Your task to perform on an android device: Go to Wikipedia Image 0: 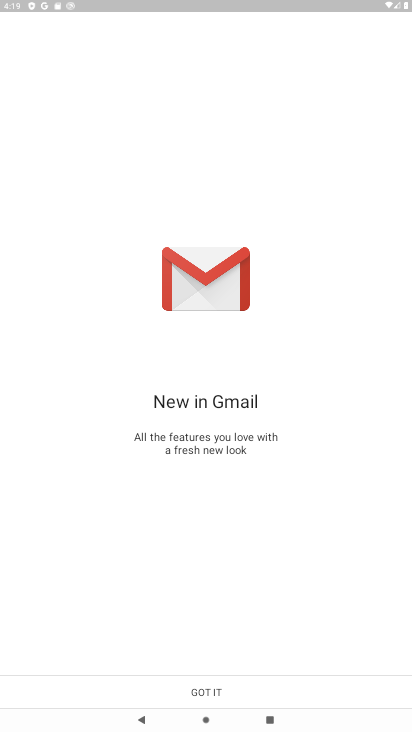
Step 0: click (210, 691)
Your task to perform on an android device: Go to Wikipedia Image 1: 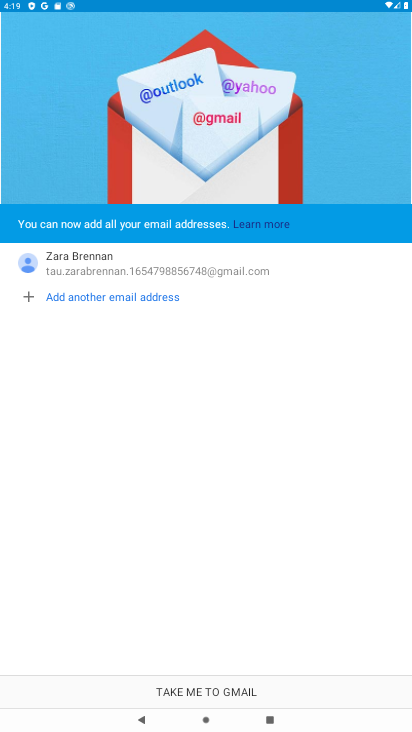
Step 1: click (210, 691)
Your task to perform on an android device: Go to Wikipedia Image 2: 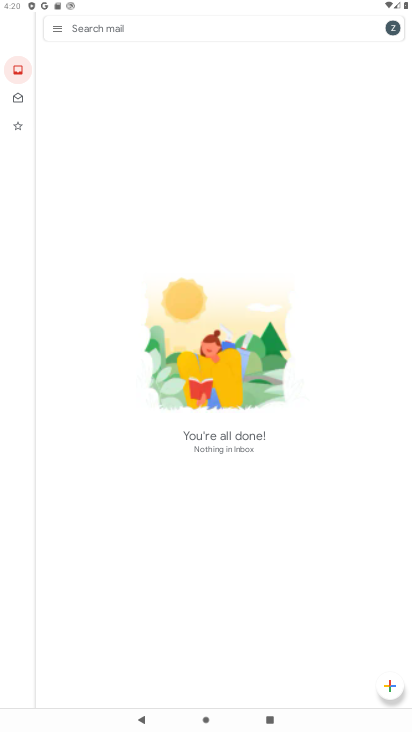
Step 2: press home button
Your task to perform on an android device: Go to Wikipedia Image 3: 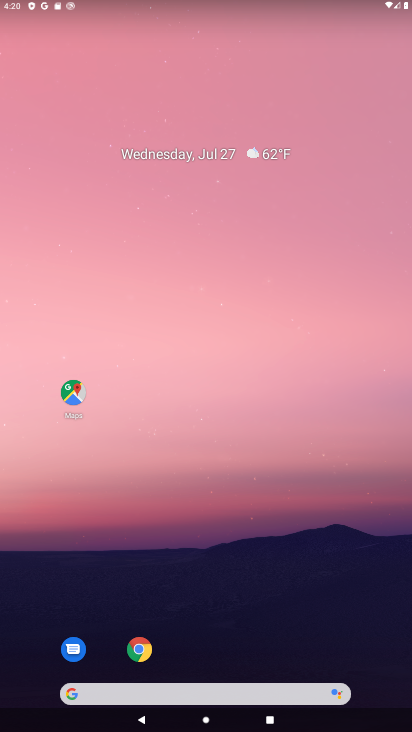
Step 3: click (175, 705)
Your task to perform on an android device: Go to Wikipedia Image 4: 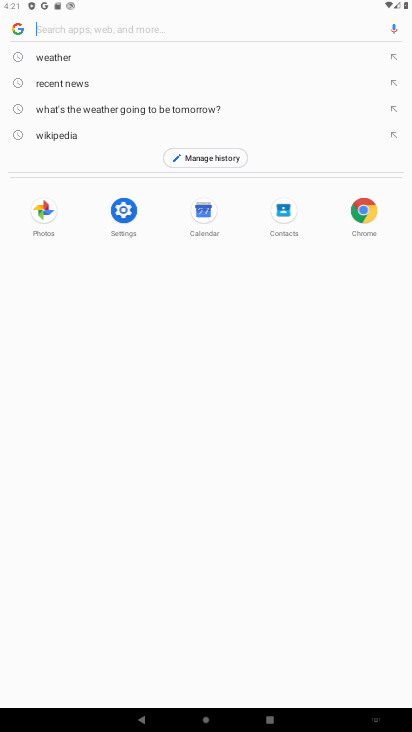
Step 4: type "Wikipedia"
Your task to perform on an android device: Go to Wikipedia Image 5: 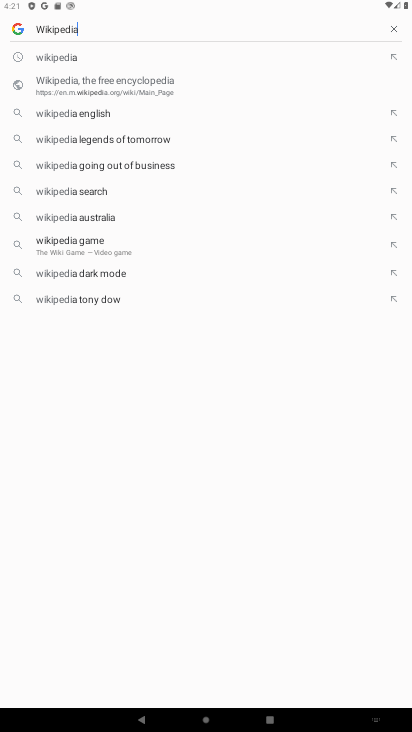
Step 5: type ""
Your task to perform on an android device: Go to Wikipedia Image 6: 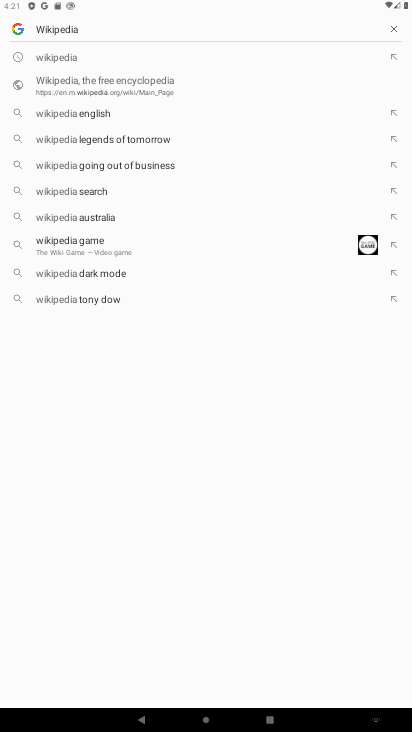
Step 6: press enter
Your task to perform on an android device: Go to Wikipedia Image 7: 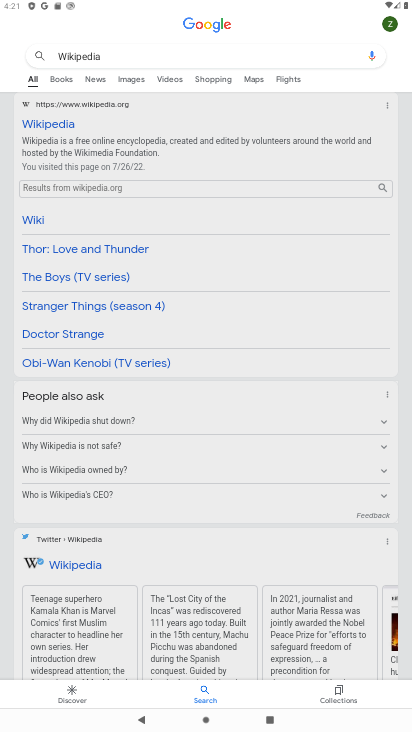
Step 7: task complete